Your task to perform on an android device: turn off airplane mode Image 0: 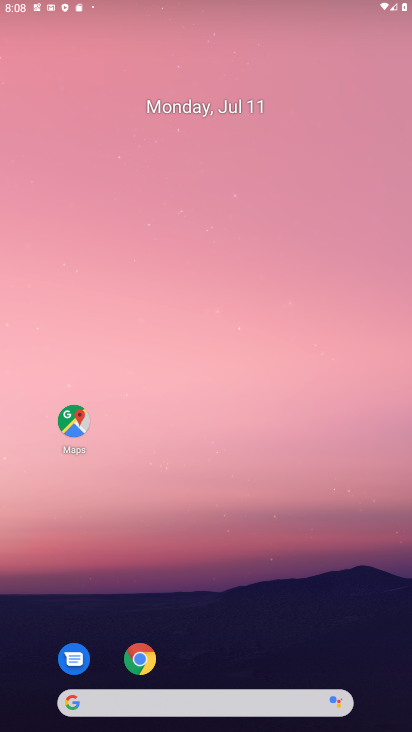
Step 0: drag from (271, 662) to (206, 234)
Your task to perform on an android device: turn off airplane mode Image 1: 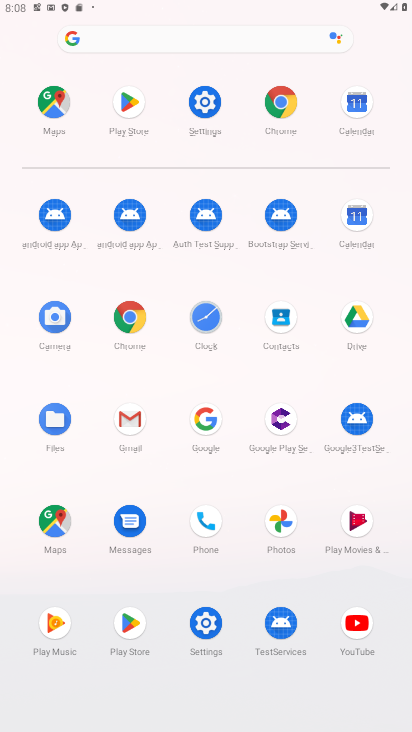
Step 1: click (199, 107)
Your task to perform on an android device: turn off airplane mode Image 2: 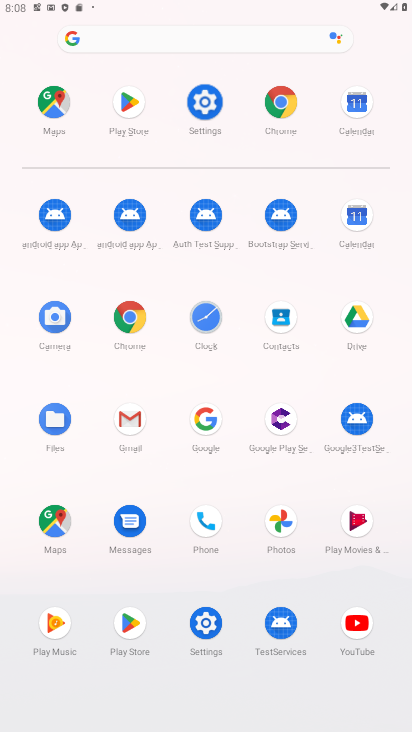
Step 2: click (201, 111)
Your task to perform on an android device: turn off airplane mode Image 3: 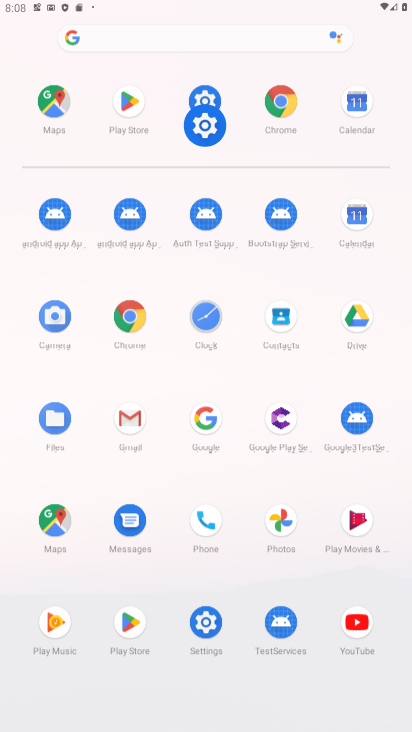
Step 3: click (201, 111)
Your task to perform on an android device: turn off airplane mode Image 4: 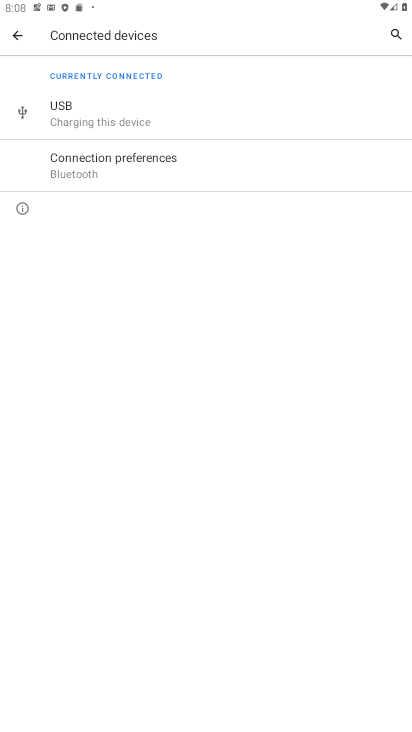
Step 4: click (14, 37)
Your task to perform on an android device: turn off airplane mode Image 5: 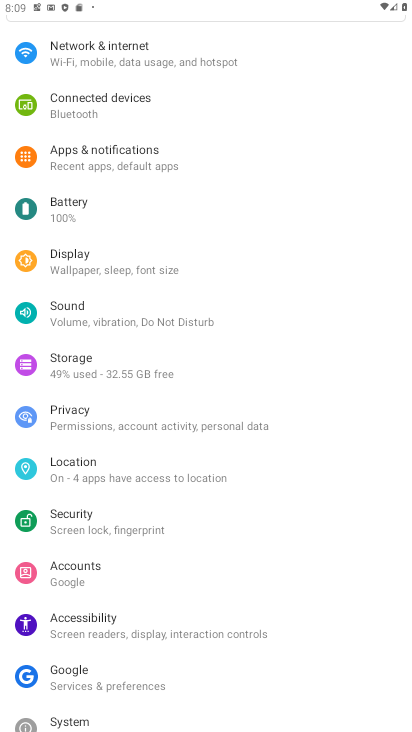
Step 5: click (99, 65)
Your task to perform on an android device: turn off airplane mode Image 6: 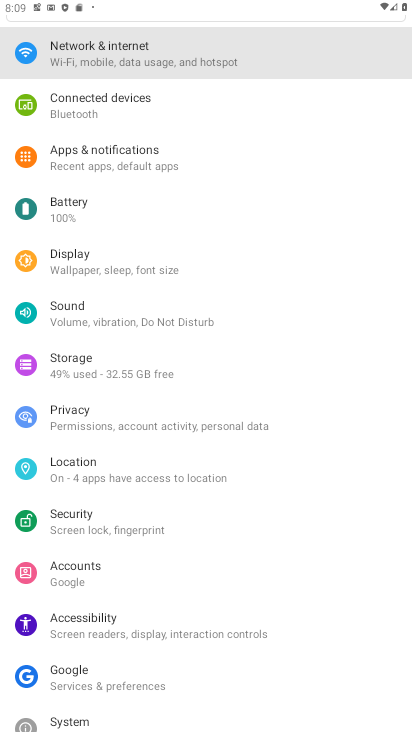
Step 6: click (92, 56)
Your task to perform on an android device: turn off airplane mode Image 7: 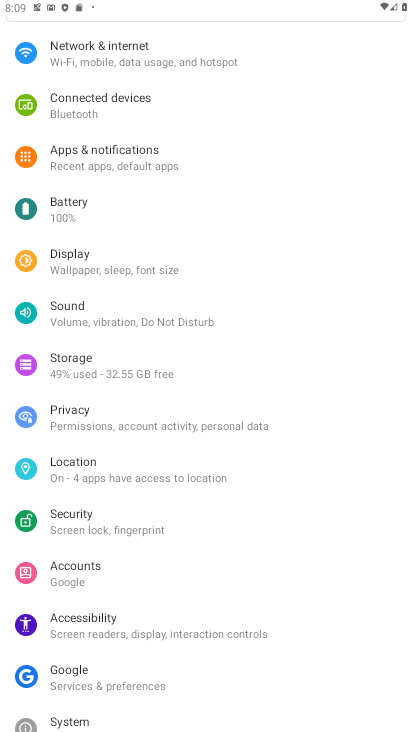
Step 7: click (97, 53)
Your task to perform on an android device: turn off airplane mode Image 8: 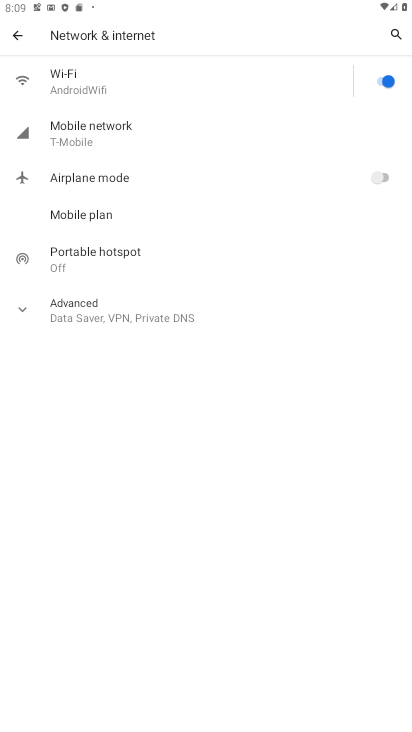
Step 8: task complete